Your task to perform on an android device: turn on the 12-hour format for clock Image 0: 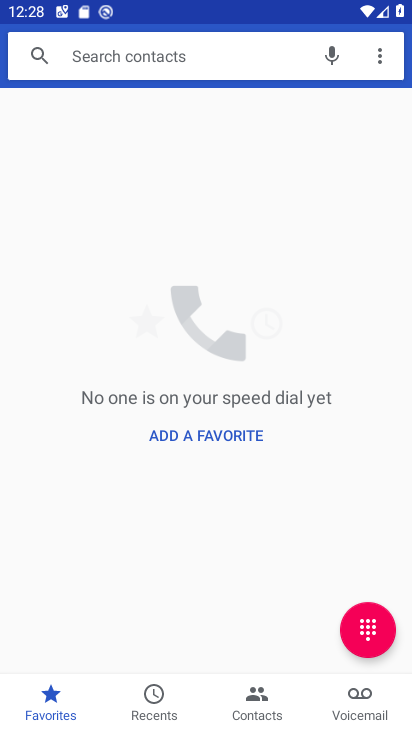
Step 0: press home button
Your task to perform on an android device: turn on the 12-hour format for clock Image 1: 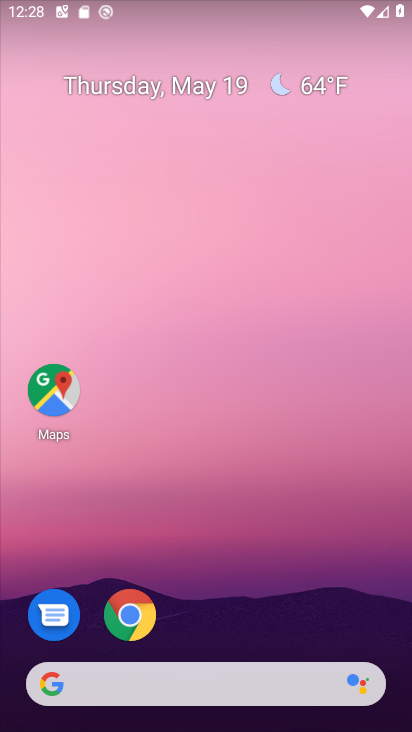
Step 1: drag from (187, 673) to (278, 180)
Your task to perform on an android device: turn on the 12-hour format for clock Image 2: 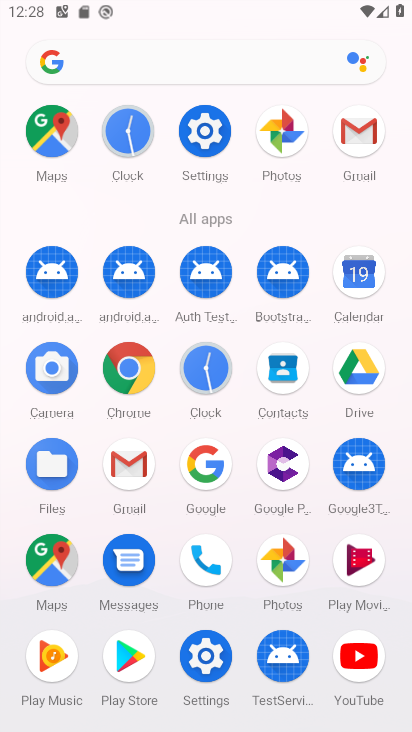
Step 2: click (223, 385)
Your task to perform on an android device: turn on the 12-hour format for clock Image 3: 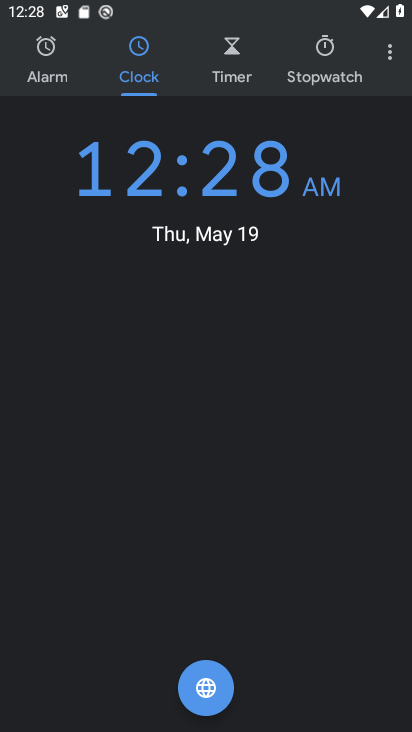
Step 3: click (378, 56)
Your task to perform on an android device: turn on the 12-hour format for clock Image 4: 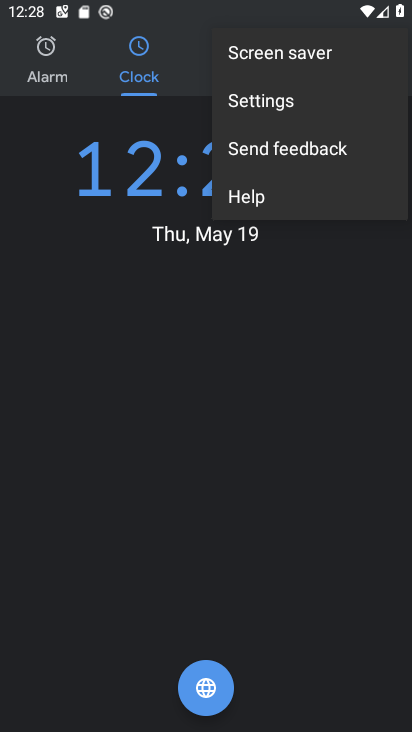
Step 4: click (273, 112)
Your task to perform on an android device: turn on the 12-hour format for clock Image 5: 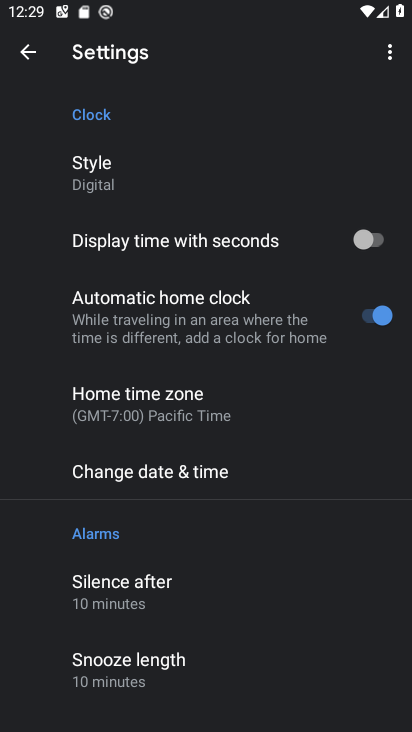
Step 5: click (106, 471)
Your task to perform on an android device: turn on the 12-hour format for clock Image 6: 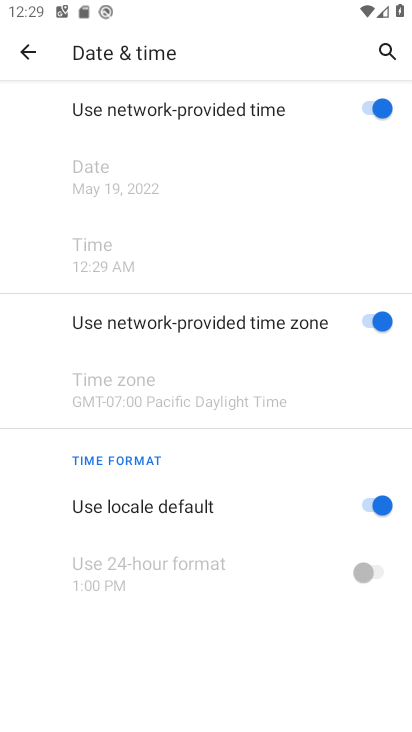
Step 6: click (377, 502)
Your task to perform on an android device: turn on the 12-hour format for clock Image 7: 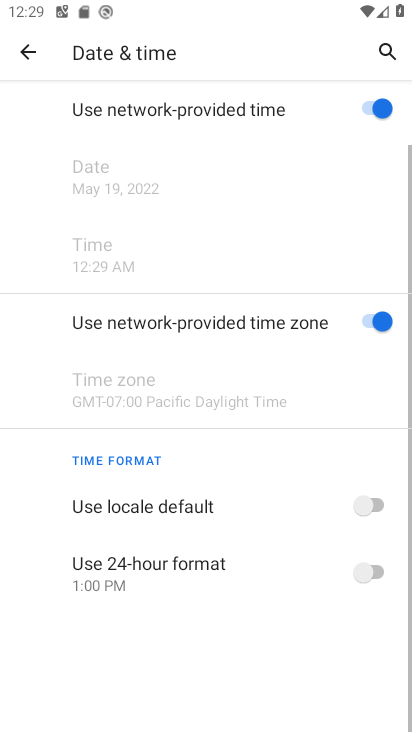
Step 7: click (365, 581)
Your task to perform on an android device: turn on the 12-hour format for clock Image 8: 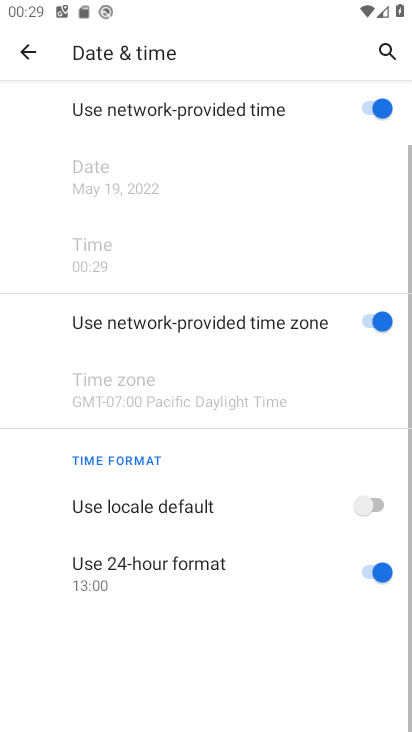
Step 8: click (365, 581)
Your task to perform on an android device: turn on the 12-hour format for clock Image 9: 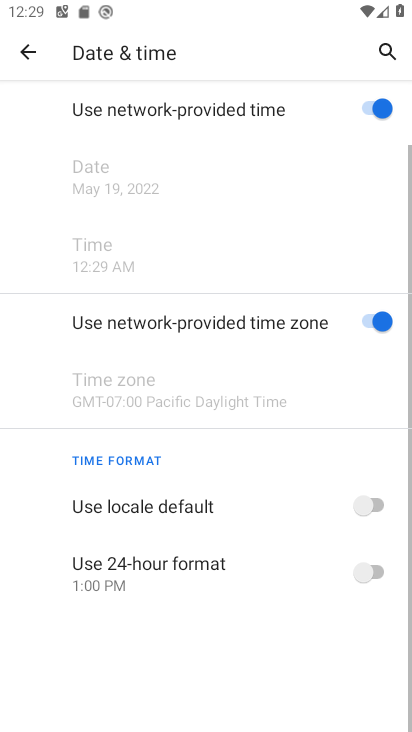
Step 9: task complete